Your task to perform on an android device: Open the calendar and show me this week's events Image 0: 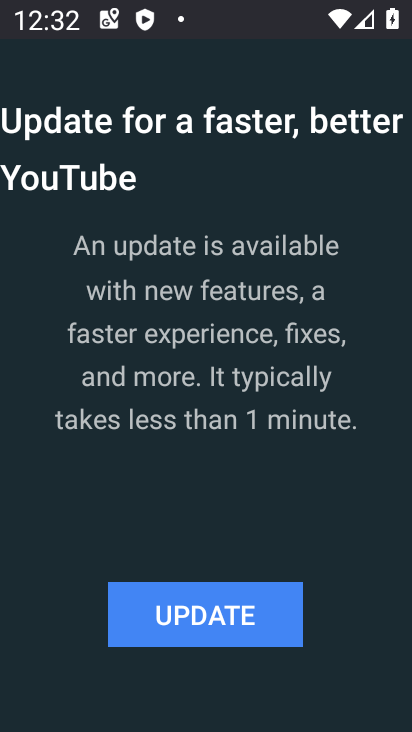
Step 0: press back button
Your task to perform on an android device: Open the calendar and show me this week's events Image 1: 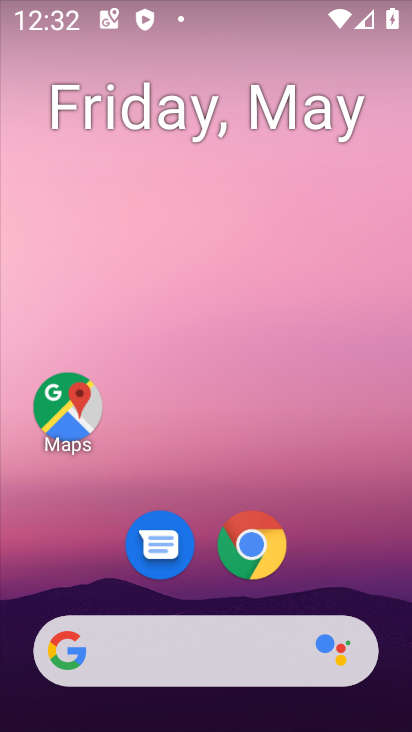
Step 1: drag from (324, 590) to (335, 296)
Your task to perform on an android device: Open the calendar and show me this week's events Image 2: 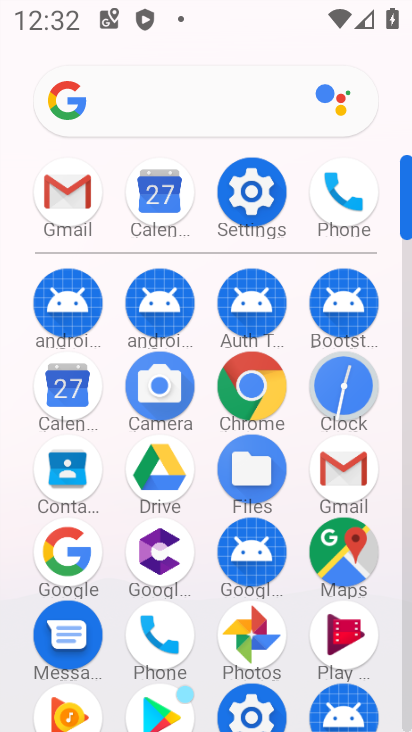
Step 2: click (60, 388)
Your task to perform on an android device: Open the calendar and show me this week's events Image 3: 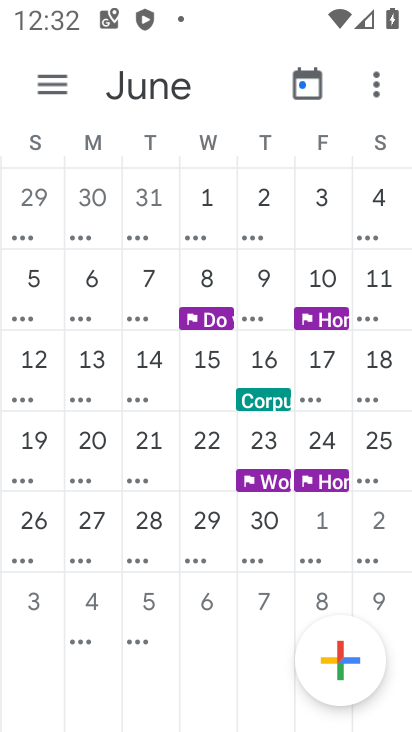
Step 3: click (48, 79)
Your task to perform on an android device: Open the calendar and show me this week's events Image 4: 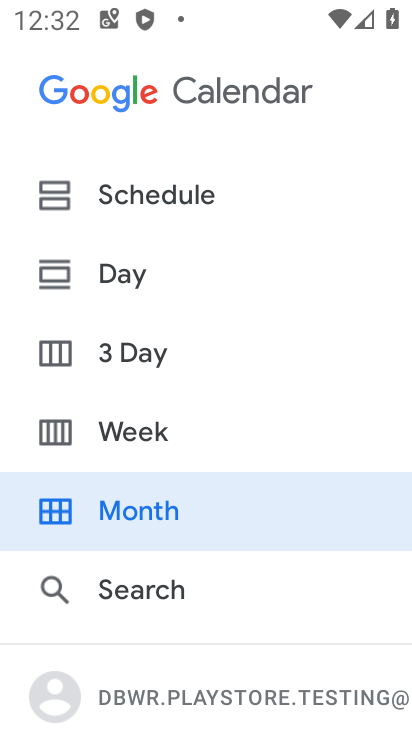
Step 4: click (134, 437)
Your task to perform on an android device: Open the calendar and show me this week's events Image 5: 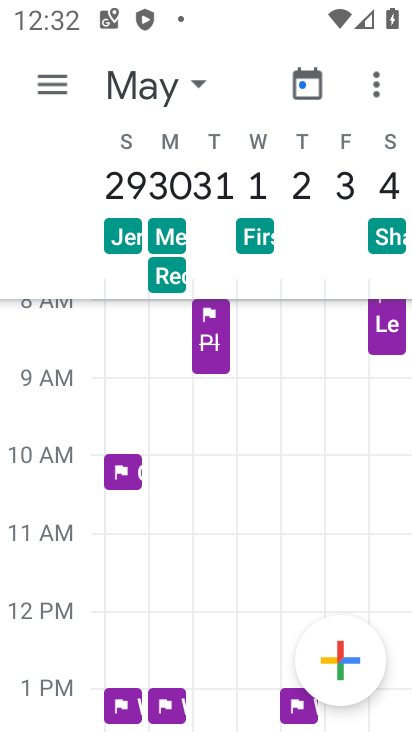
Step 5: task complete